Your task to perform on an android device: Go to Amazon Image 0: 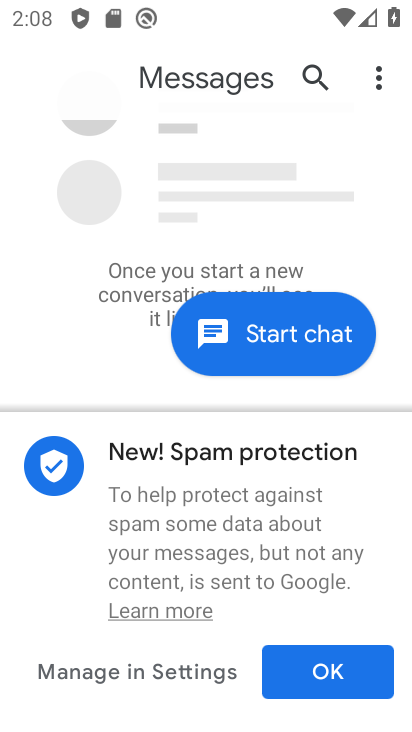
Step 0: press back button
Your task to perform on an android device: Go to Amazon Image 1: 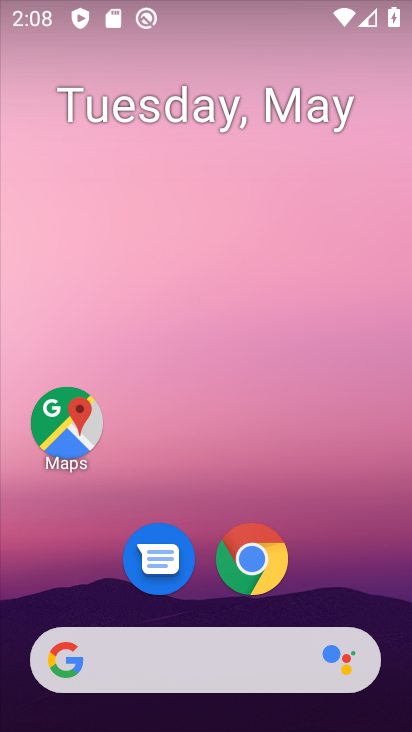
Step 1: click (254, 560)
Your task to perform on an android device: Go to Amazon Image 2: 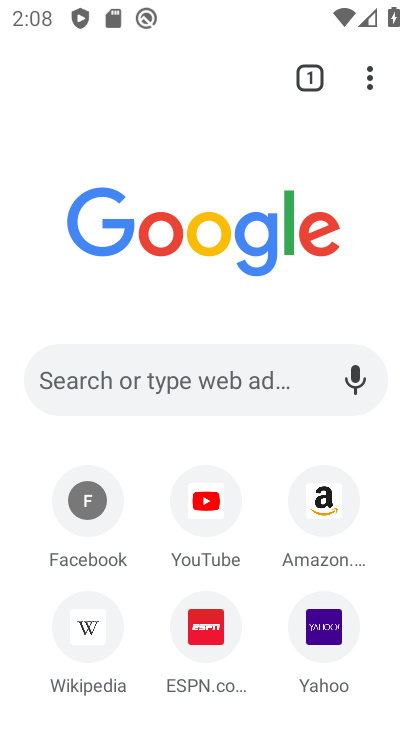
Step 2: click (320, 508)
Your task to perform on an android device: Go to Amazon Image 3: 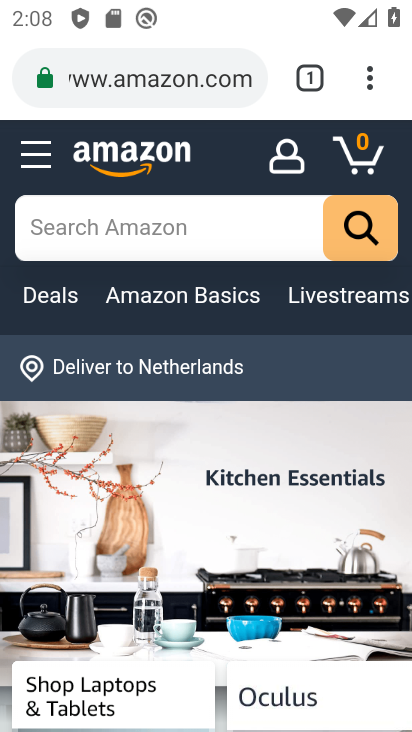
Step 3: task complete